Your task to perform on an android device: toggle data saver in the chrome app Image 0: 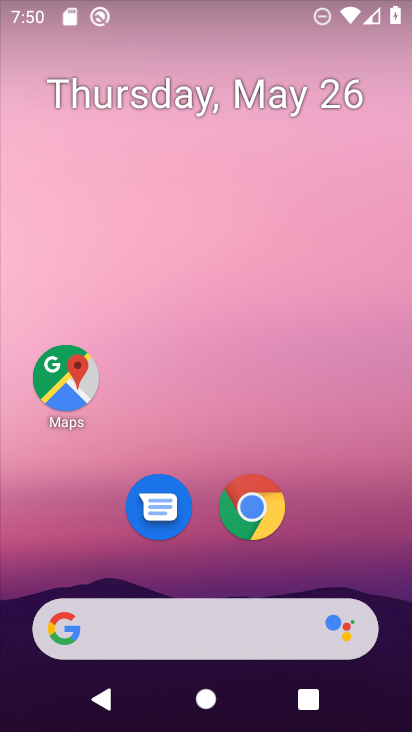
Step 0: drag from (169, 551) to (172, 182)
Your task to perform on an android device: toggle data saver in the chrome app Image 1: 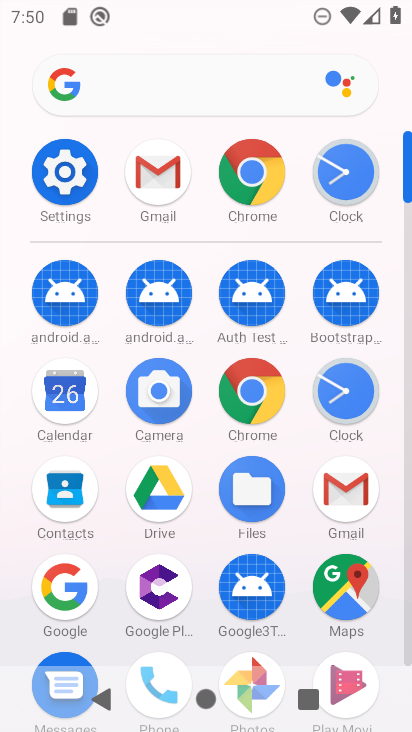
Step 1: click (243, 184)
Your task to perform on an android device: toggle data saver in the chrome app Image 2: 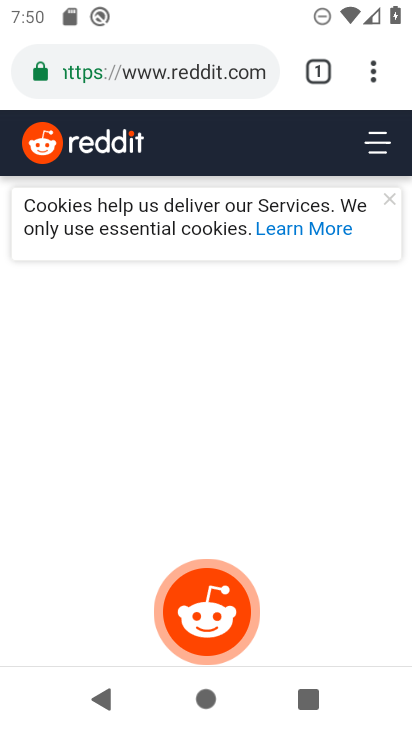
Step 2: click (375, 72)
Your task to perform on an android device: toggle data saver in the chrome app Image 3: 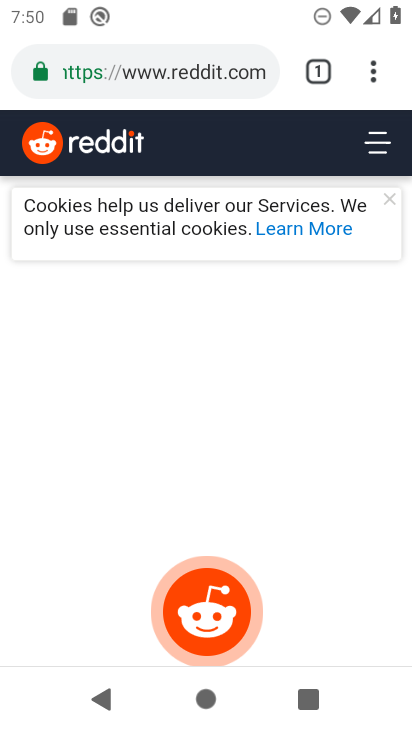
Step 3: click (379, 78)
Your task to perform on an android device: toggle data saver in the chrome app Image 4: 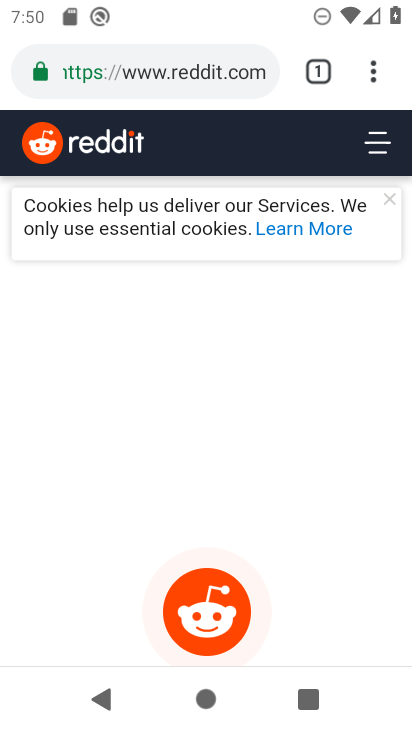
Step 4: click (372, 81)
Your task to perform on an android device: toggle data saver in the chrome app Image 5: 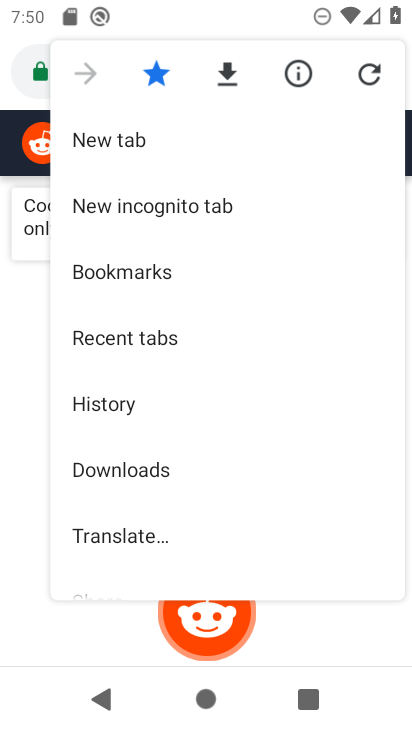
Step 5: drag from (146, 518) to (143, 130)
Your task to perform on an android device: toggle data saver in the chrome app Image 6: 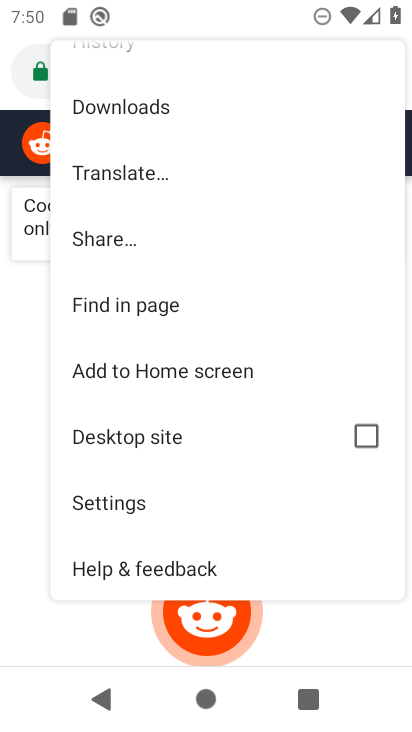
Step 6: click (119, 514)
Your task to perform on an android device: toggle data saver in the chrome app Image 7: 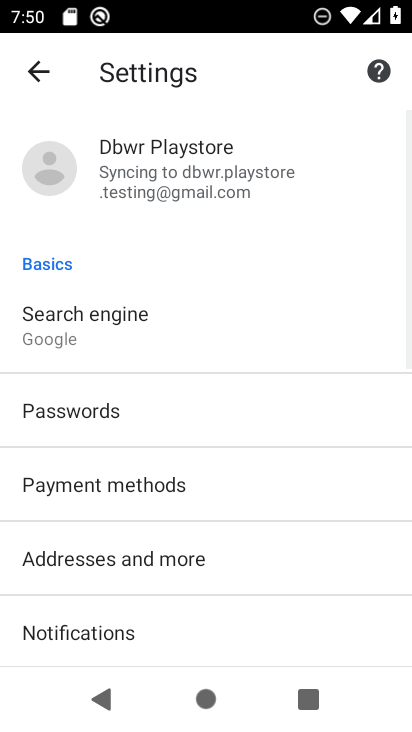
Step 7: drag from (156, 599) to (164, 203)
Your task to perform on an android device: toggle data saver in the chrome app Image 8: 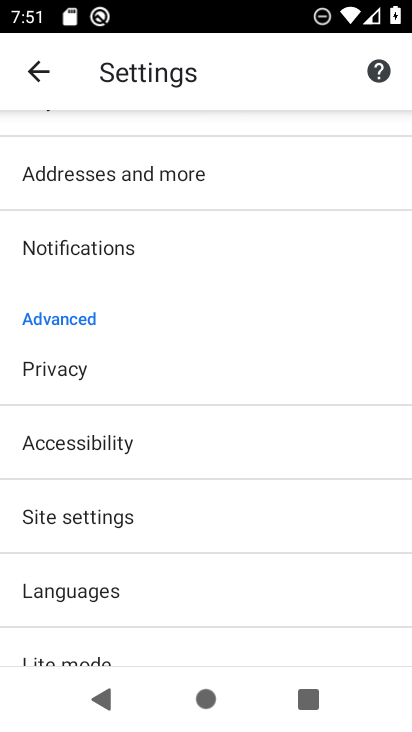
Step 8: drag from (96, 589) to (108, 279)
Your task to perform on an android device: toggle data saver in the chrome app Image 9: 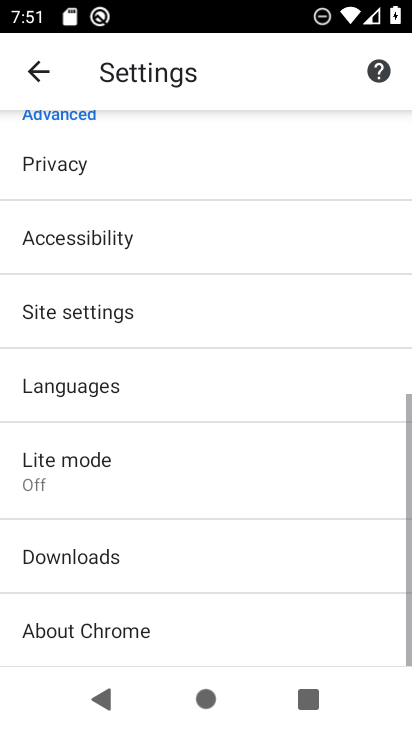
Step 9: click (84, 504)
Your task to perform on an android device: toggle data saver in the chrome app Image 10: 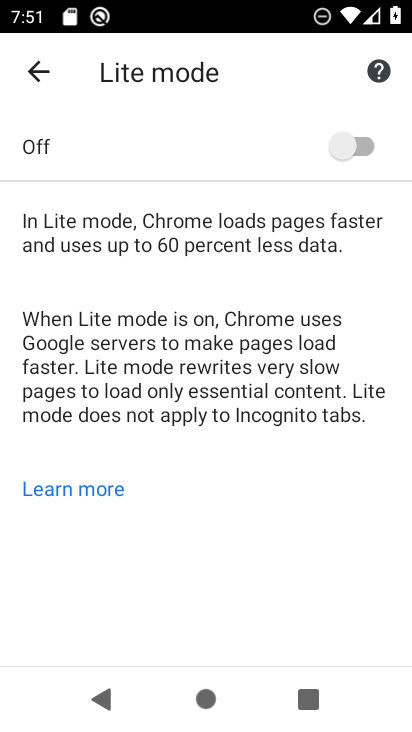
Step 10: click (372, 164)
Your task to perform on an android device: toggle data saver in the chrome app Image 11: 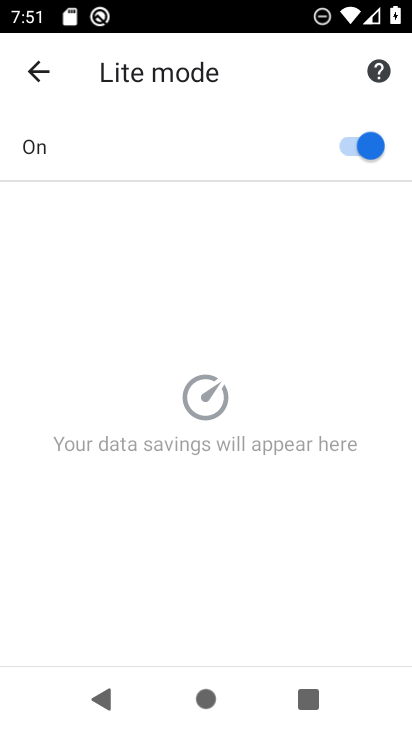
Step 11: task complete